Your task to perform on an android device: Search for floor lamps on article.com Image 0: 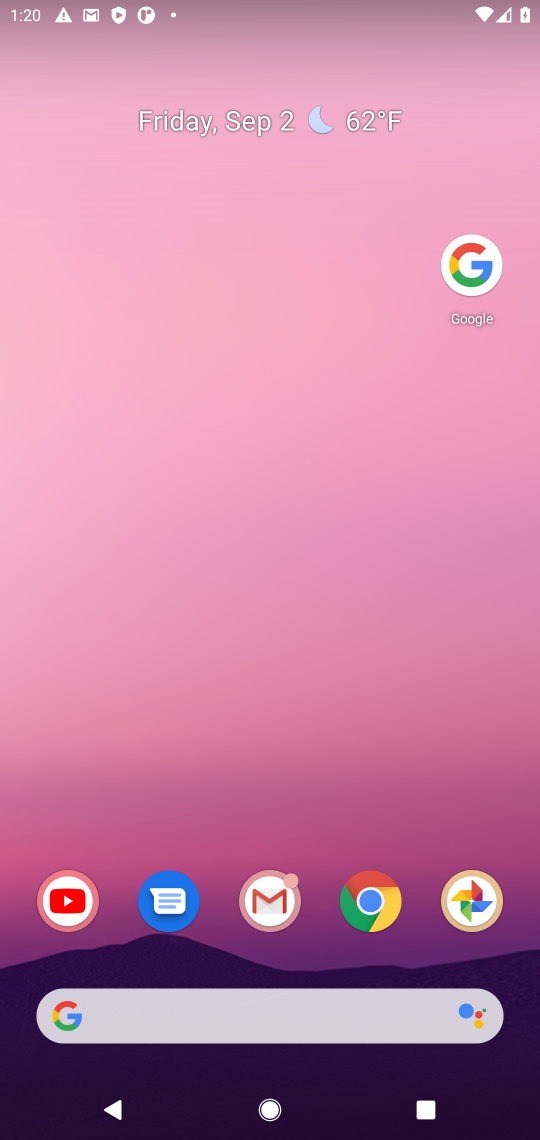
Step 0: click (361, 901)
Your task to perform on an android device: Search for floor lamps on article.com Image 1: 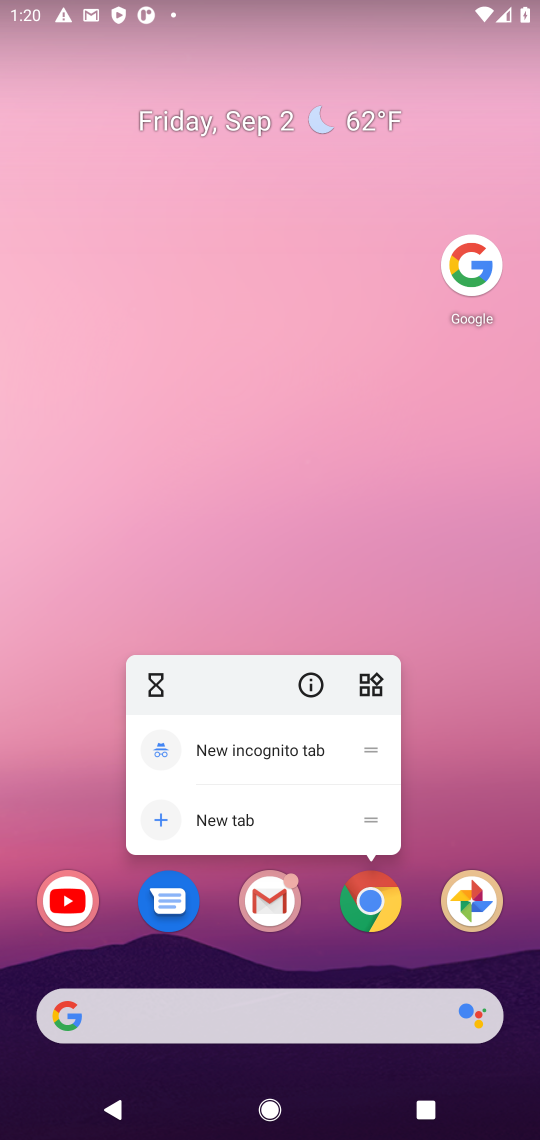
Step 1: click (369, 885)
Your task to perform on an android device: Search for floor lamps on article.com Image 2: 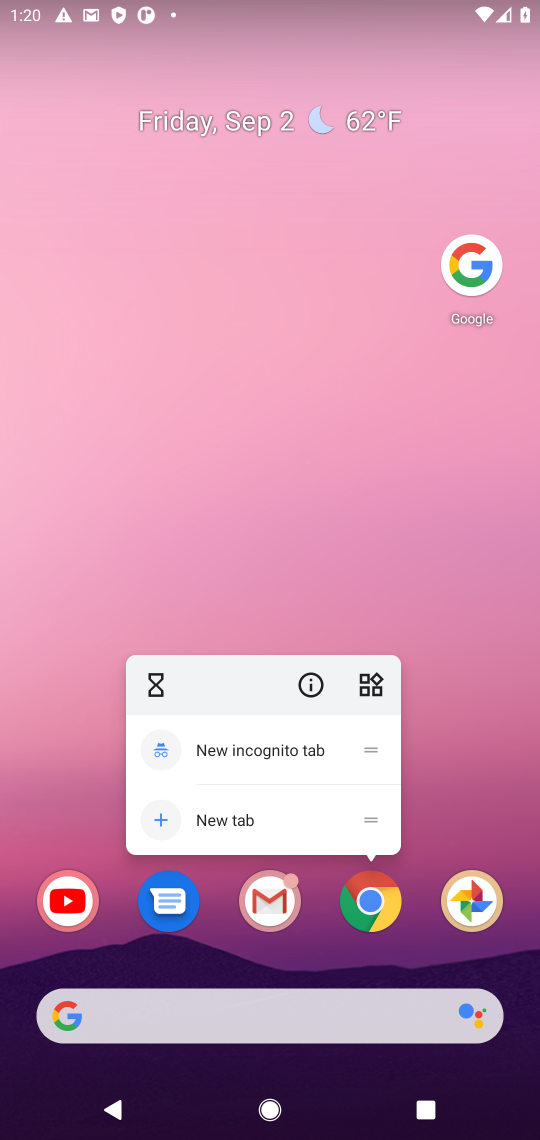
Step 2: click (373, 894)
Your task to perform on an android device: Search for floor lamps on article.com Image 3: 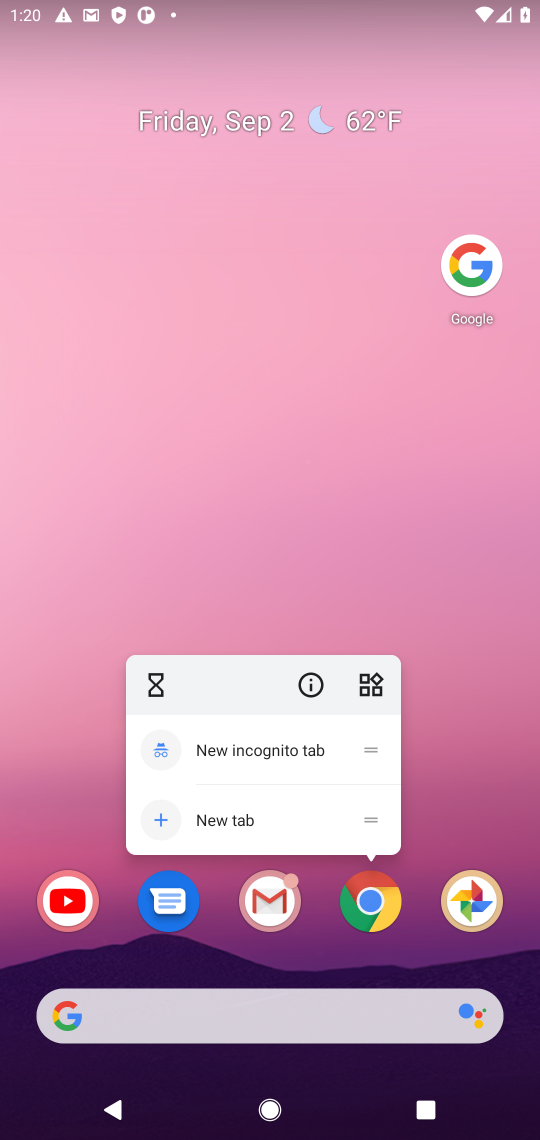
Step 3: click (373, 894)
Your task to perform on an android device: Search for floor lamps on article.com Image 4: 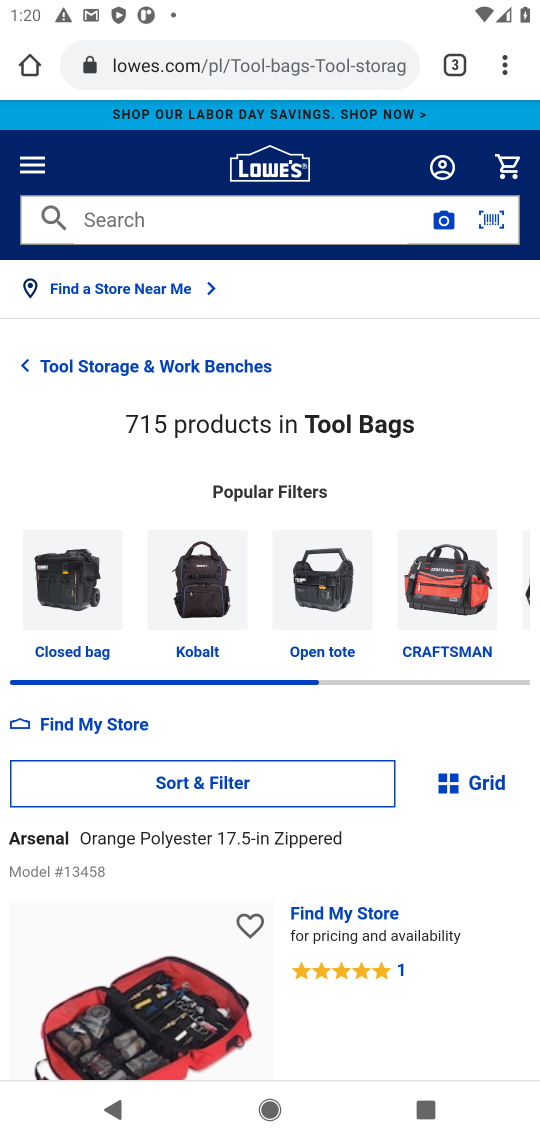
Step 4: click (504, 44)
Your task to perform on an android device: Search for floor lamps on article.com Image 5: 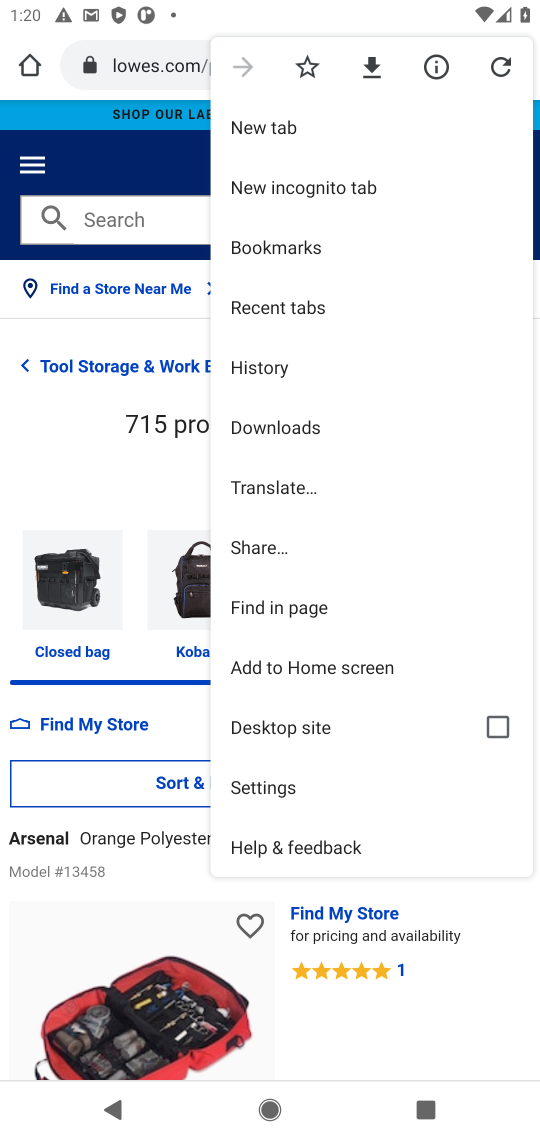
Step 5: click (241, 118)
Your task to perform on an android device: Search for floor lamps on article.com Image 6: 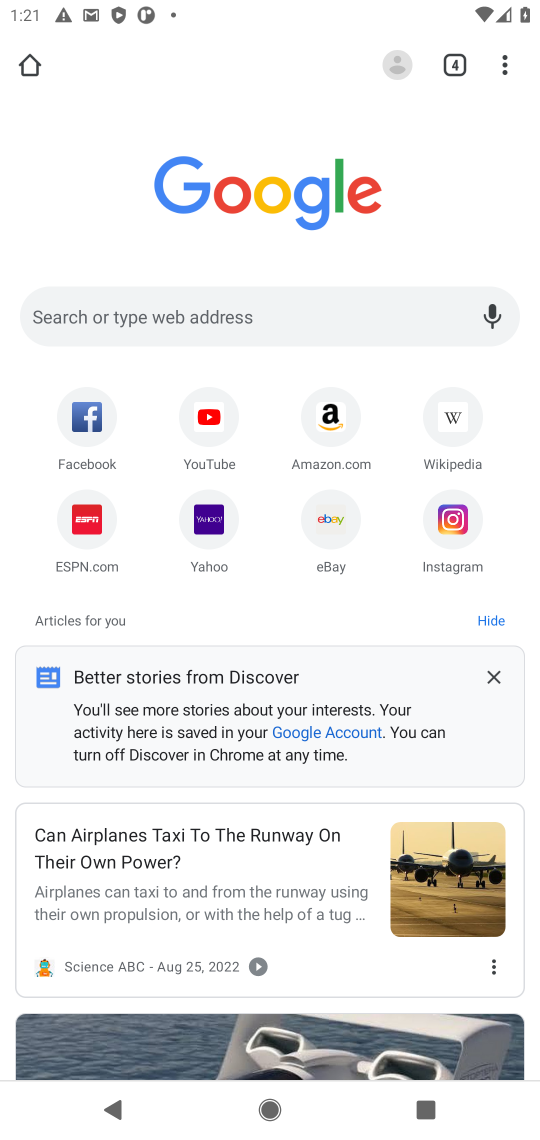
Step 6: click (242, 288)
Your task to perform on an android device: Search for floor lamps on article.com Image 7: 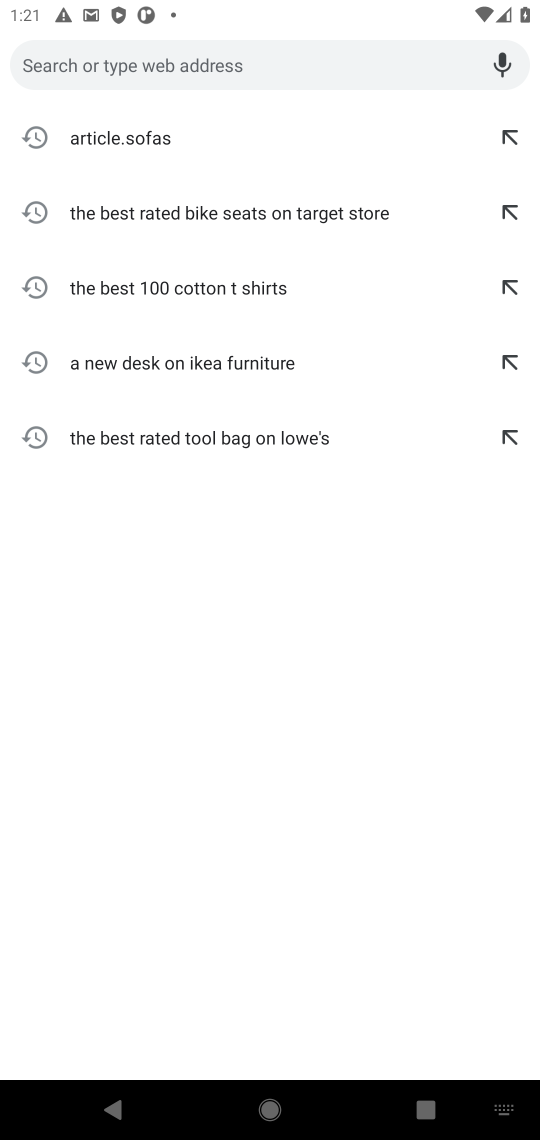
Step 7: type "floor lamps on article.com "
Your task to perform on an android device: Search for floor lamps on article.com Image 8: 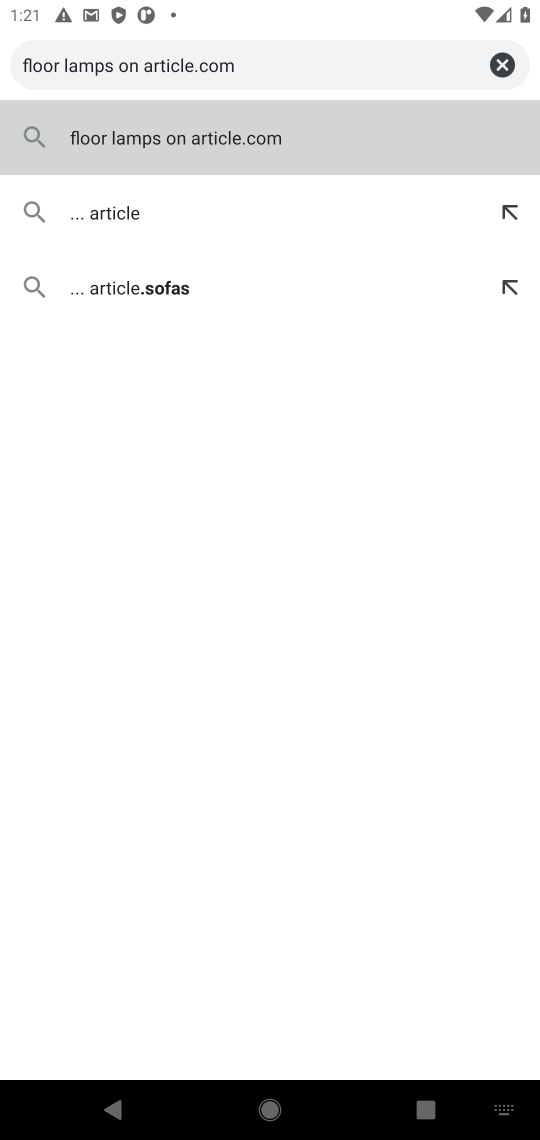
Step 8: click (189, 128)
Your task to perform on an android device: Search for floor lamps on article.com Image 9: 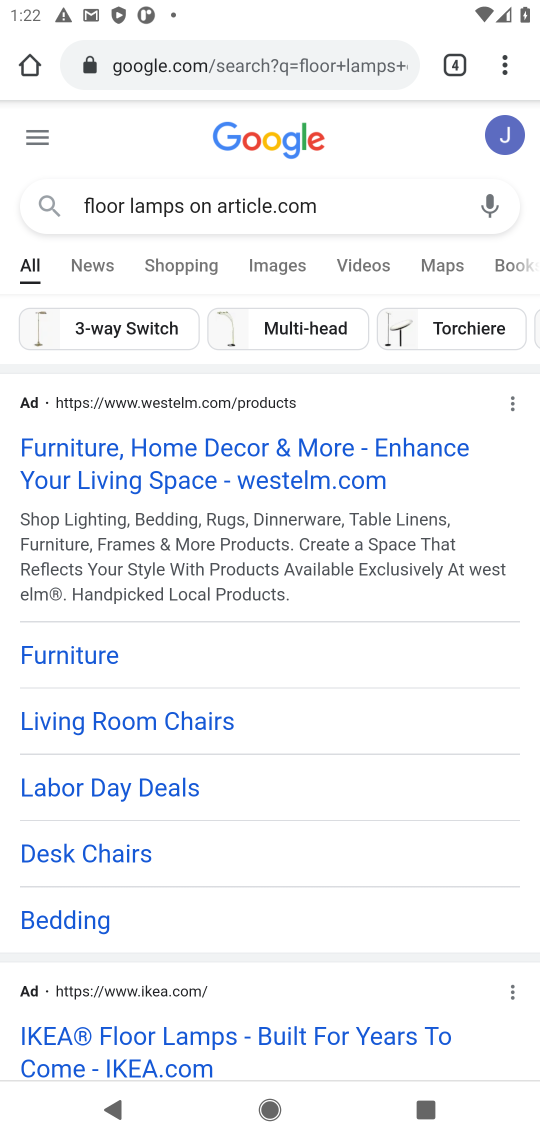
Step 9: drag from (264, 1032) to (323, 533)
Your task to perform on an android device: Search for floor lamps on article.com Image 10: 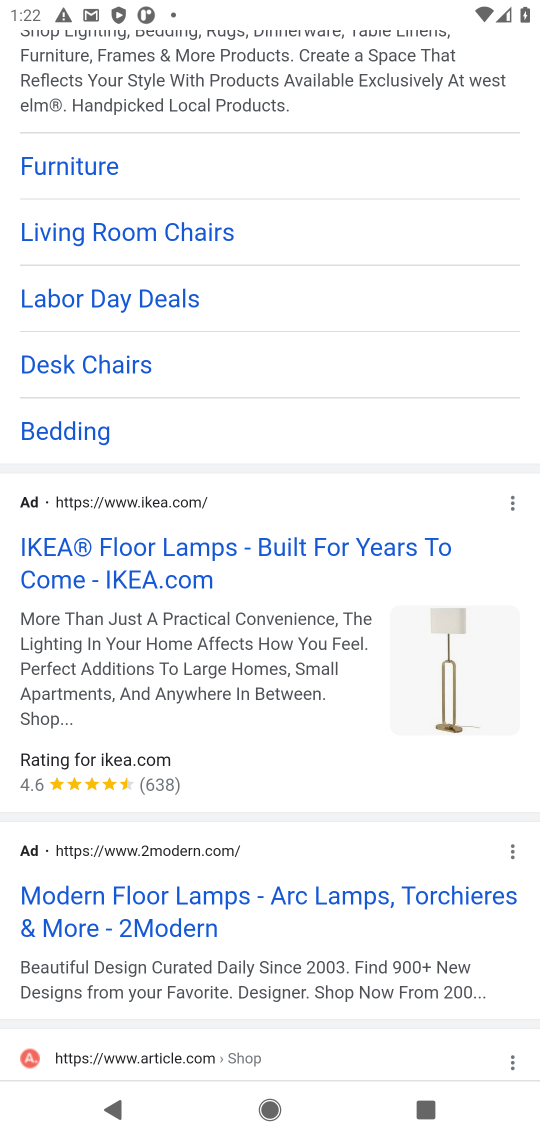
Step 10: drag from (189, 939) to (233, 169)
Your task to perform on an android device: Search for floor lamps on article.com Image 11: 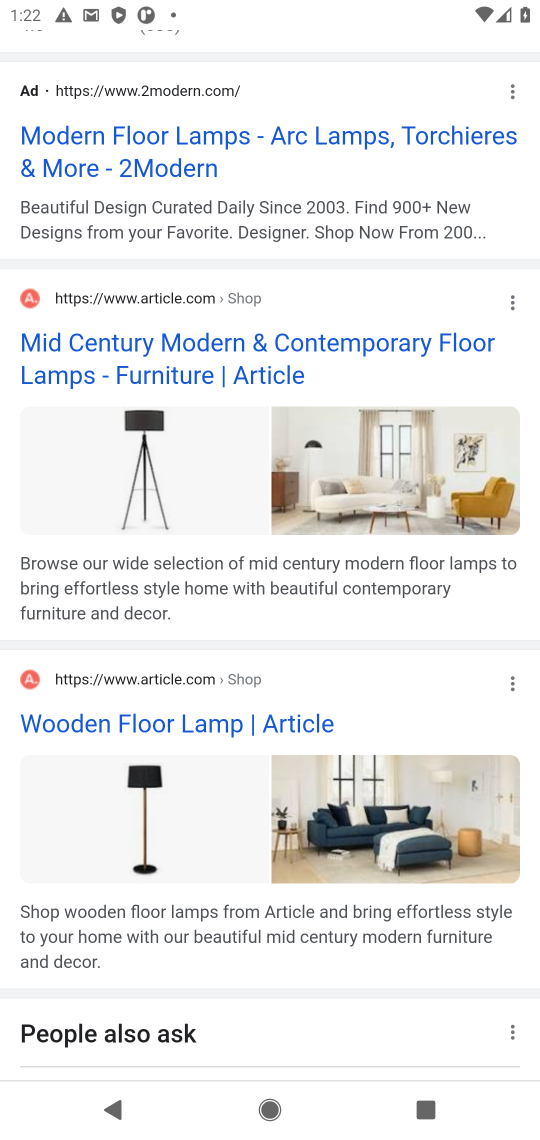
Step 11: drag from (273, 206) to (252, 977)
Your task to perform on an android device: Search for floor lamps on article.com Image 12: 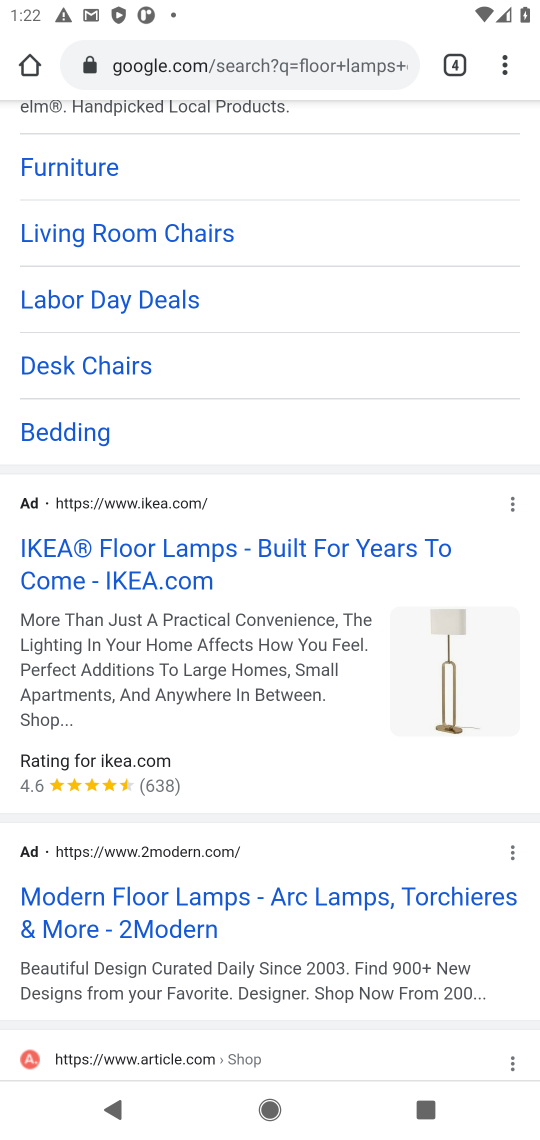
Step 12: drag from (233, 147) to (230, 887)
Your task to perform on an android device: Search for floor lamps on article.com Image 13: 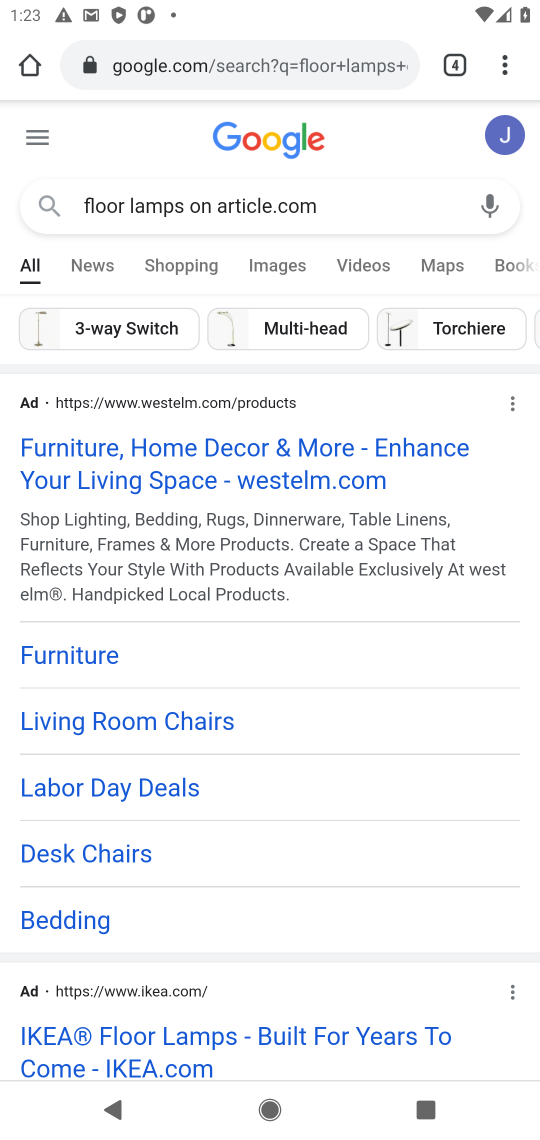
Step 13: drag from (212, 680) to (331, 271)
Your task to perform on an android device: Search for floor lamps on article.com Image 14: 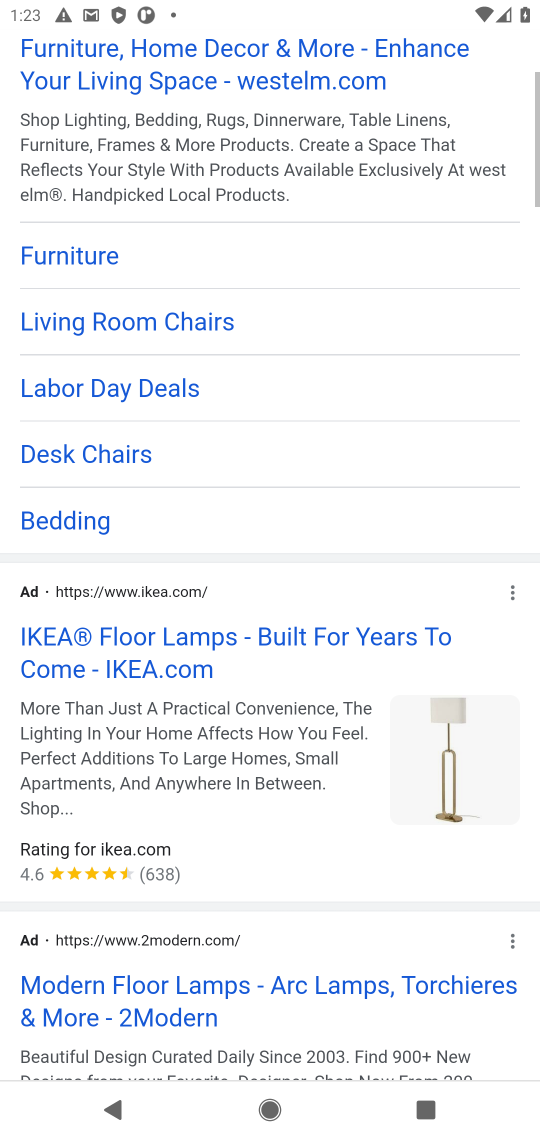
Step 14: drag from (121, 980) to (213, 458)
Your task to perform on an android device: Search for floor lamps on article.com Image 15: 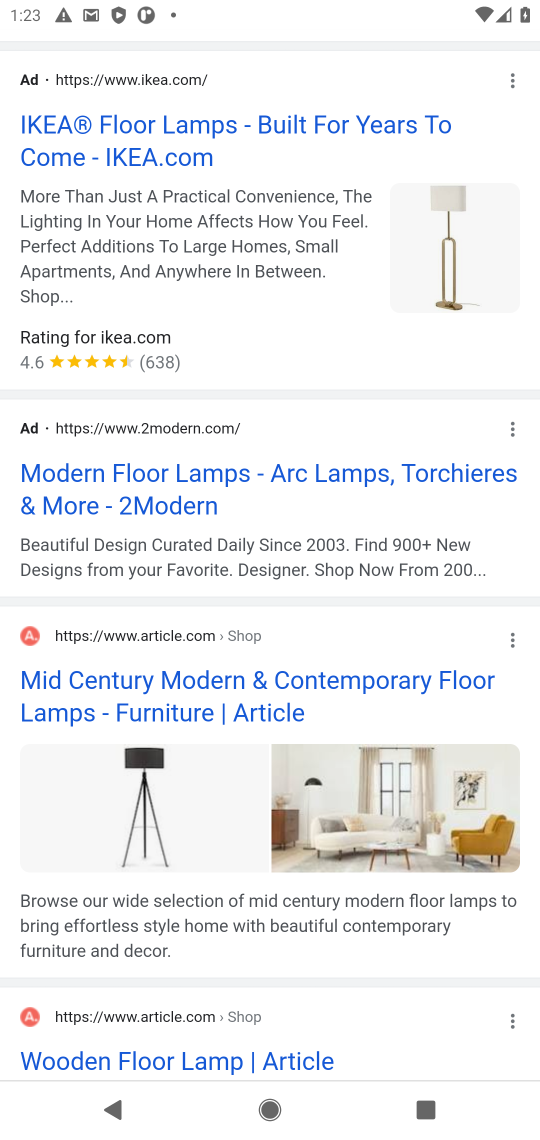
Step 15: click (116, 709)
Your task to perform on an android device: Search for floor lamps on article.com Image 16: 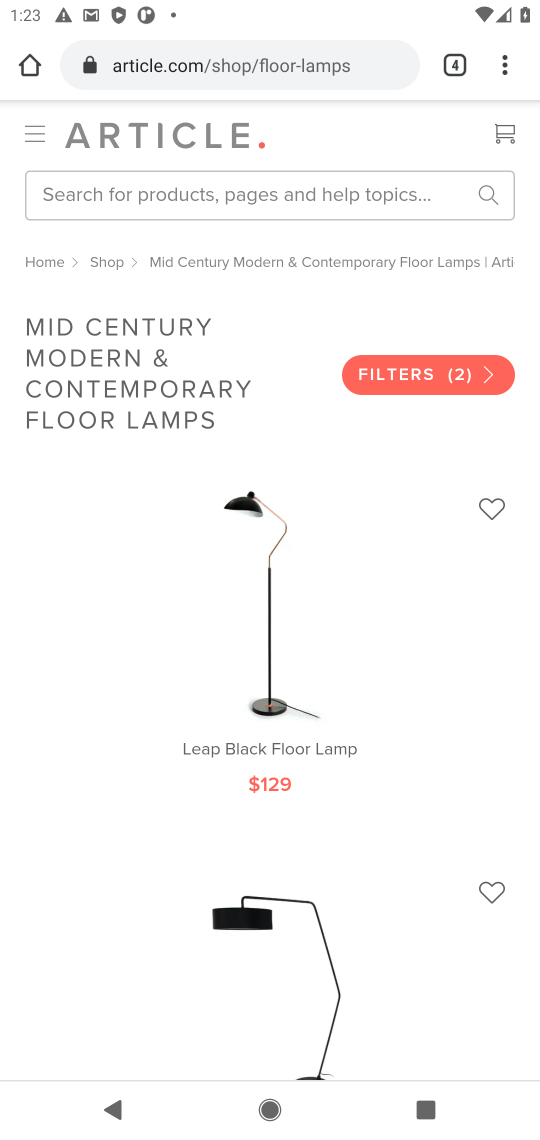
Step 16: task complete